Your task to perform on an android device: set an alarm Image 0: 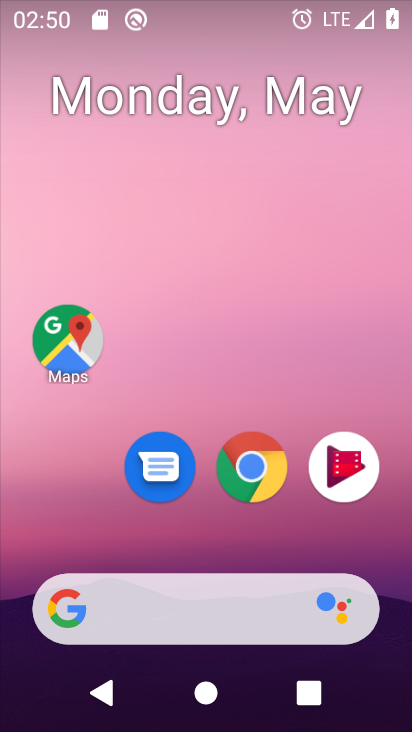
Step 0: drag from (202, 498) to (251, 178)
Your task to perform on an android device: set an alarm Image 1: 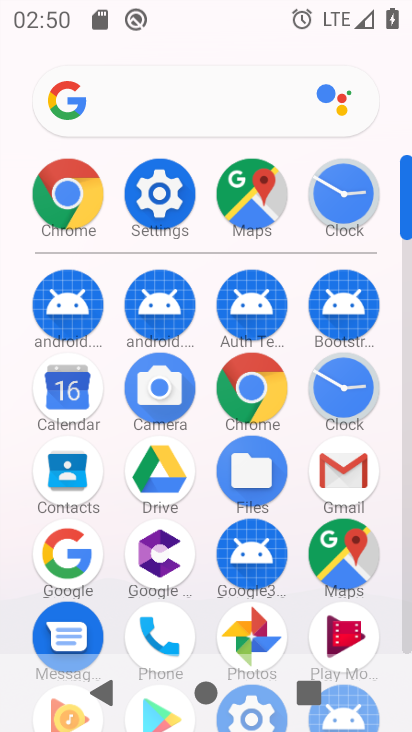
Step 1: click (339, 391)
Your task to perform on an android device: set an alarm Image 2: 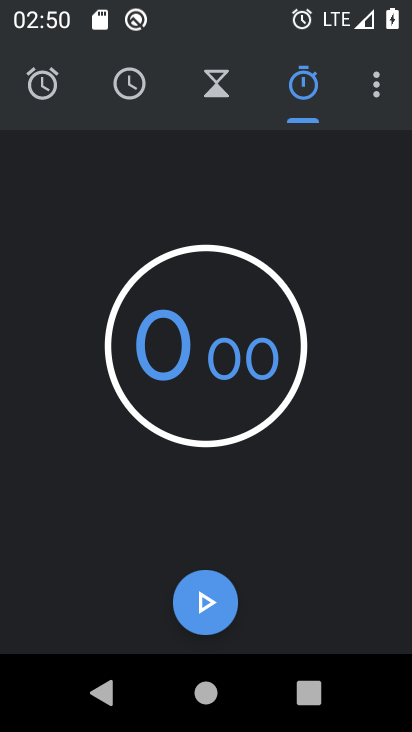
Step 2: click (52, 80)
Your task to perform on an android device: set an alarm Image 3: 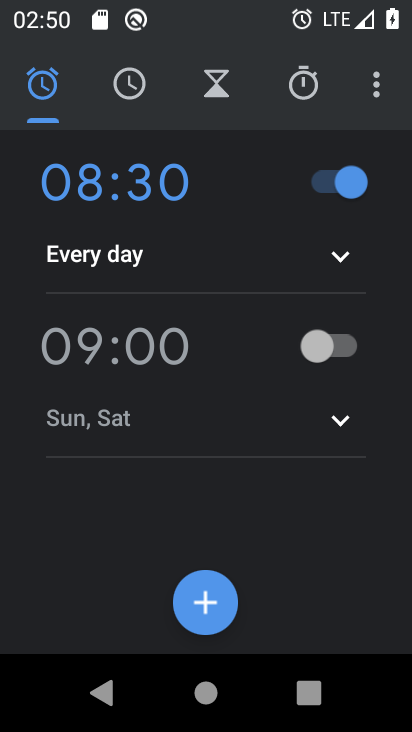
Step 3: click (343, 337)
Your task to perform on an android device: set an alarm Image 4: 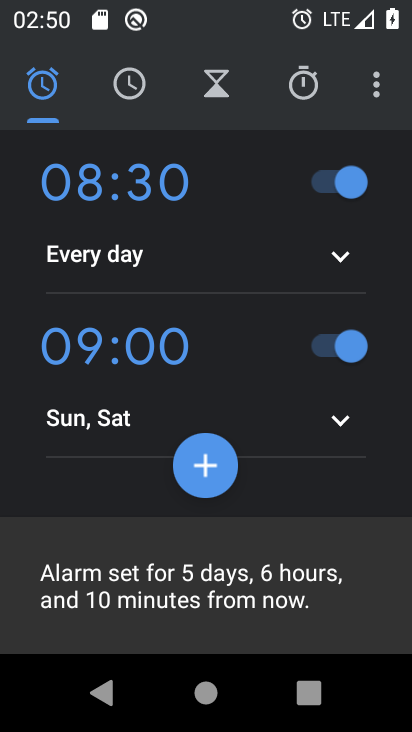
Step 4: task complete